Your task to perform on an android device: Play the last video I watched on Youtube Image 0: 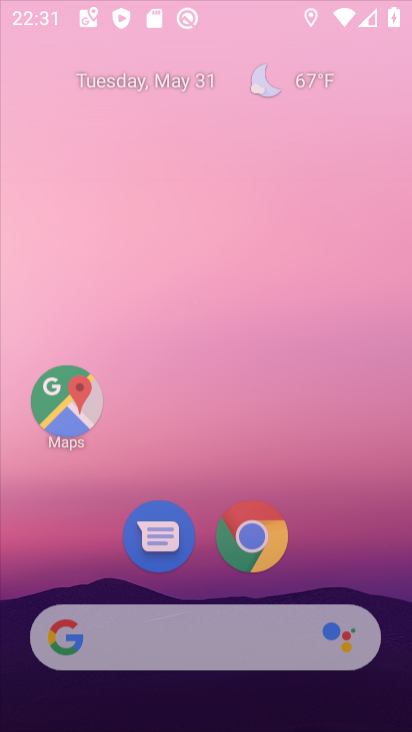
Step 0: click (256, 559)
Your task to perform on an android device: Play the last video I watched on Youtube Image 1: 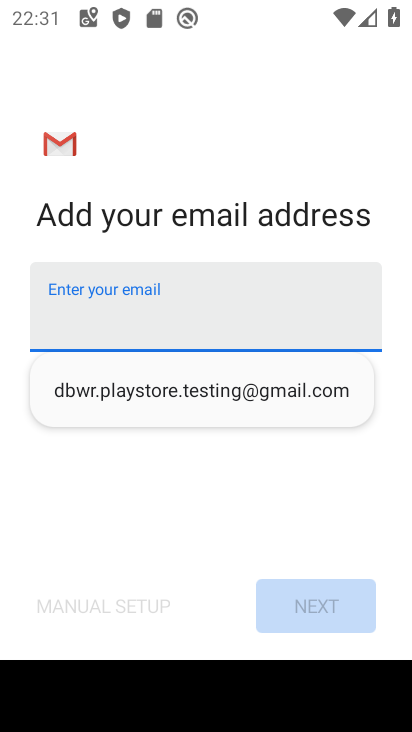
Step 1: press back button
Your task to perform on an android device: Play the last video I watched on Youtube Image 2: 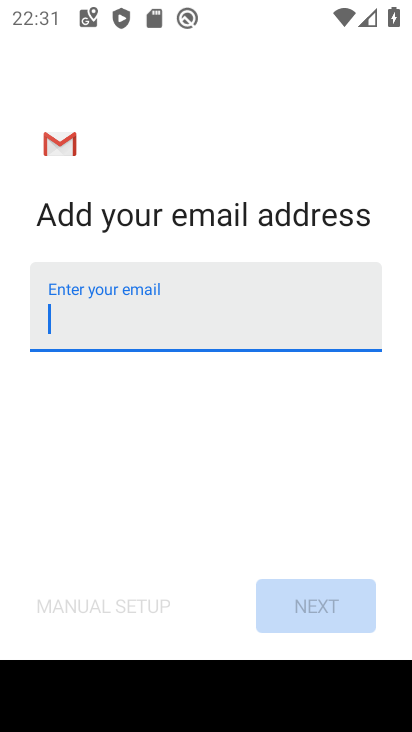
Step 2: press home button
Your task to perform on an android device: Play the last video I watched on Youtube Image 3: 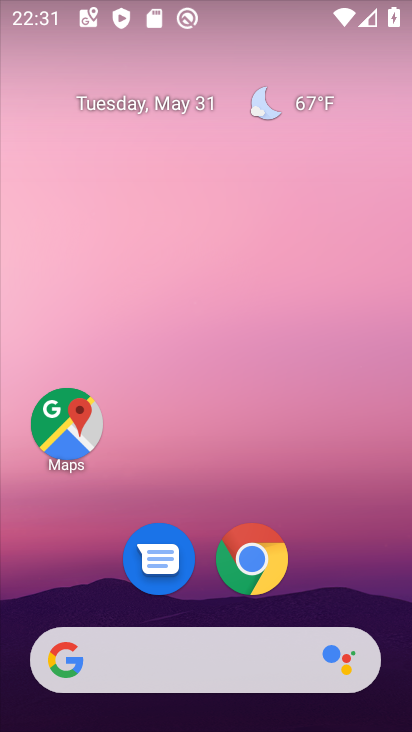
Step 3: drag from (300, 580) to (362, 69)
Your task to perform on an android device: Play the last video I watched on Youtube Image 4: 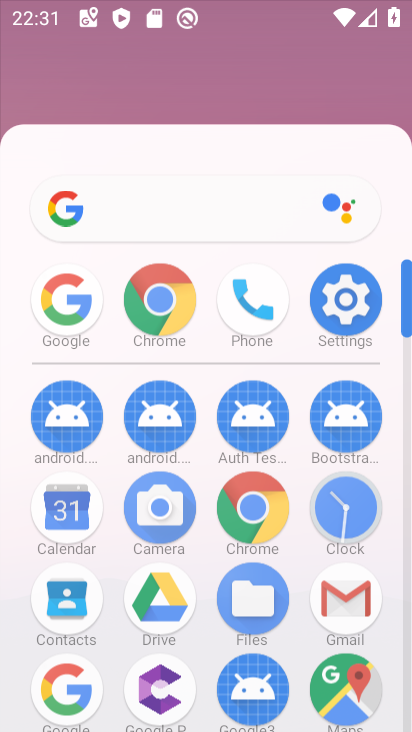
Step 4: click (361, 40)
Your task to perform on an android device: Play the last video I watched on Youtube Image 5: 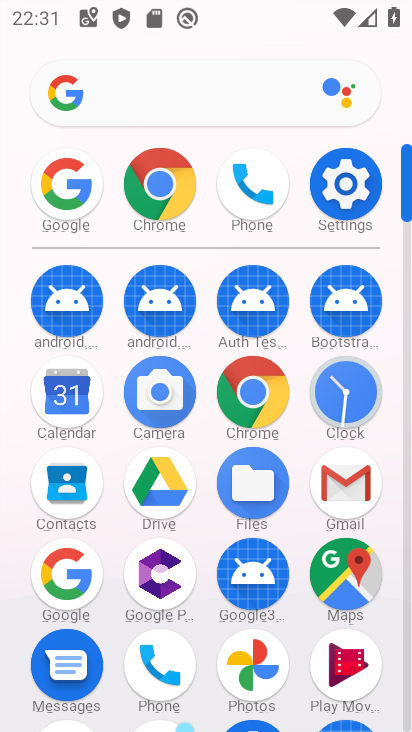
Step 5: drag from (201, 629) to (154, 248)
Your task to perform on an android device: Play the last video I watched on Youtube Image 6: 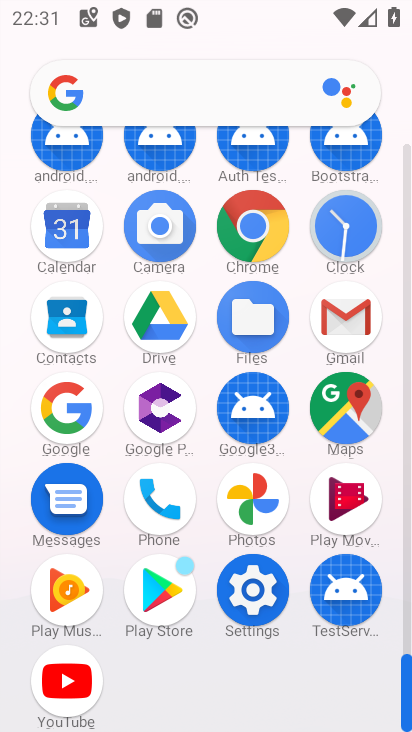
Step 6: click (70, 684)
Your task to perform on an android device: Play the last video I watched on Youtube Image 7: 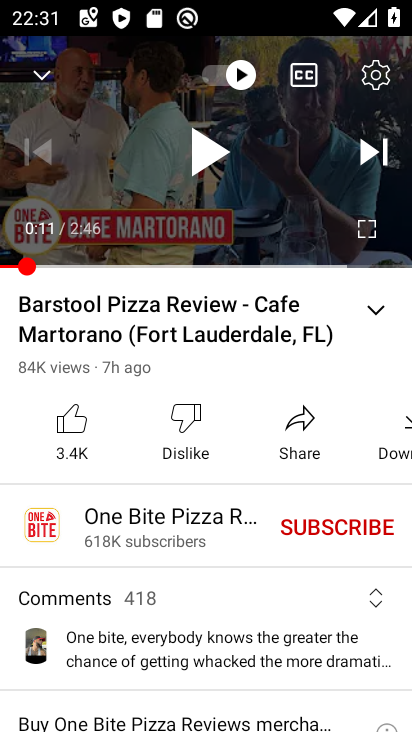
Step 7: click (198, 148)
Your task to perform on an android device: Play the last video I watched on Youtube Image 8: 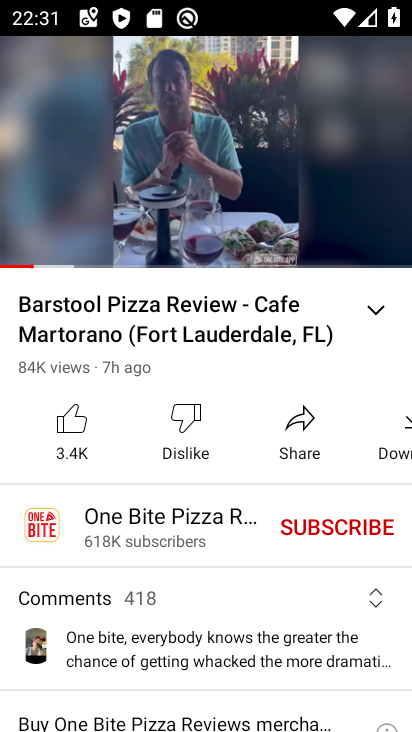
Step 8: task complete